Your task to perform on an android device: allow cookies in the chrome app Image 0: 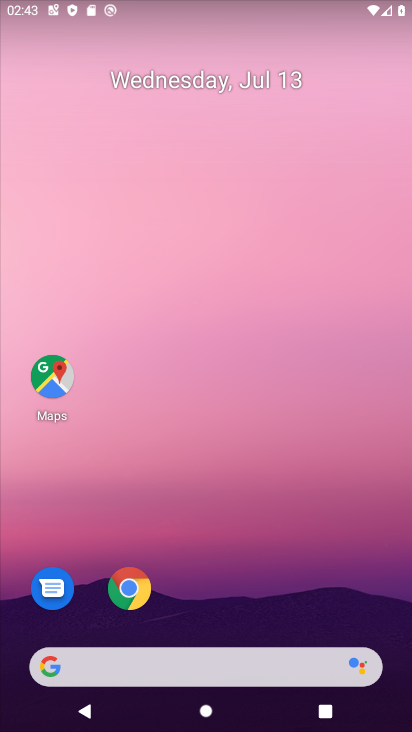
Step 0: click (130, 581)
Your task to perform on an android device: allow cookies in the chrome app Image 1: 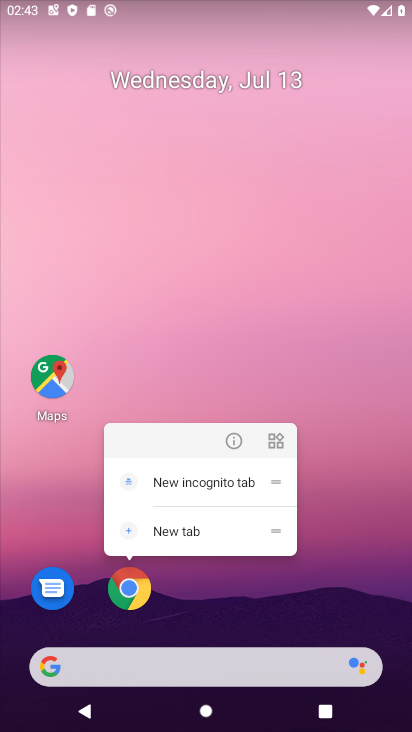
Step 1: click (128, 592)
Your task to perform on an android device: allow cookies in the chrome app Image 2: 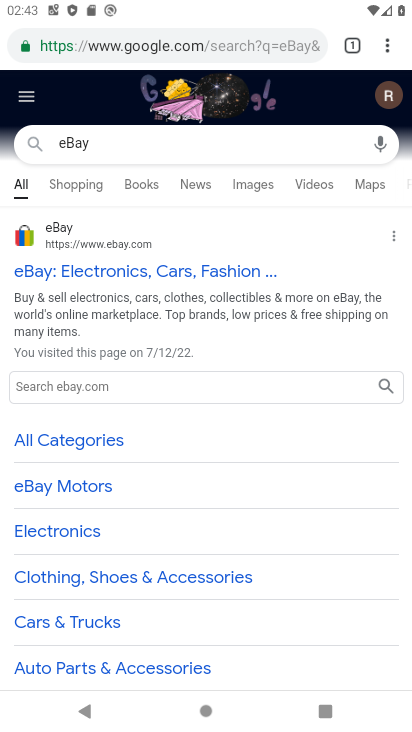
Step 2: click (389, 45)
Your task to perform on an android device: allow cookies in the chrome app Image 3: 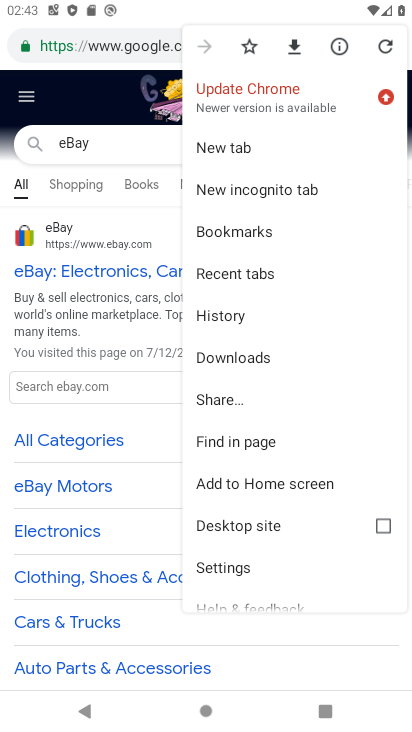
Step 3: click (223, 563)
Your task to perform on an android device: allow cookies in the chrome app Image 4: 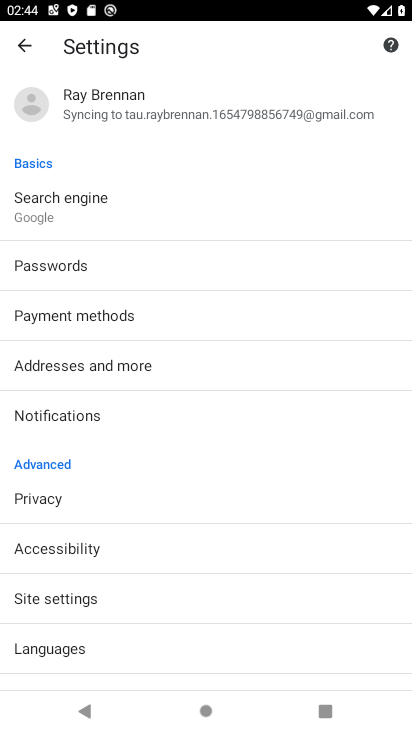
Step 4: click (38, 593)
Your task to perform on an android device: allow cookies in the chrome app Image 5: 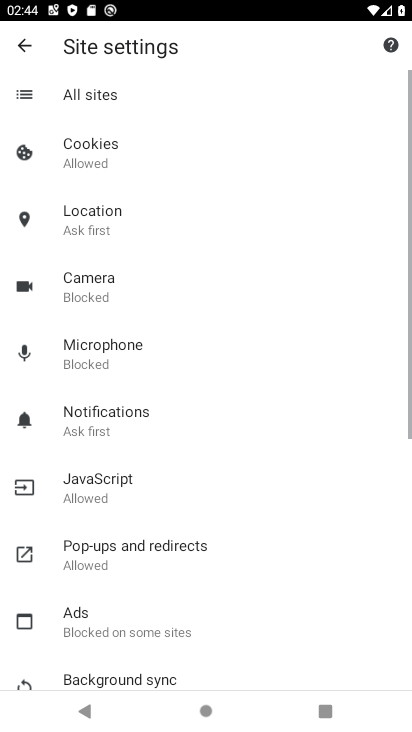
Step 5: click (81, 148)
Your task to perform on an android device: allow cookies in the chrome app Image 6: 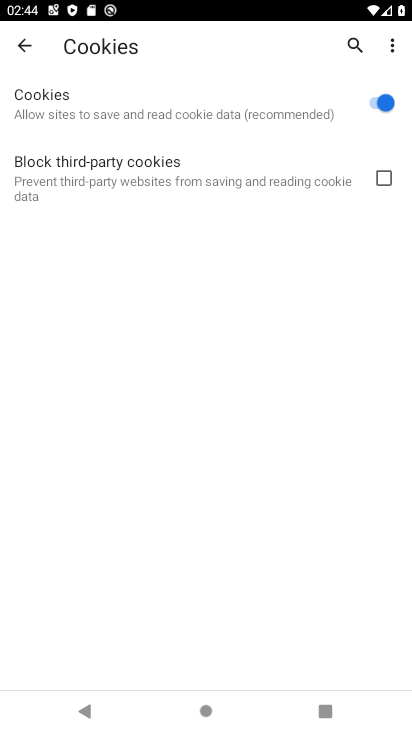
Step 6: task complete